Your task to perform on an android device: What is the news today? Image 0: 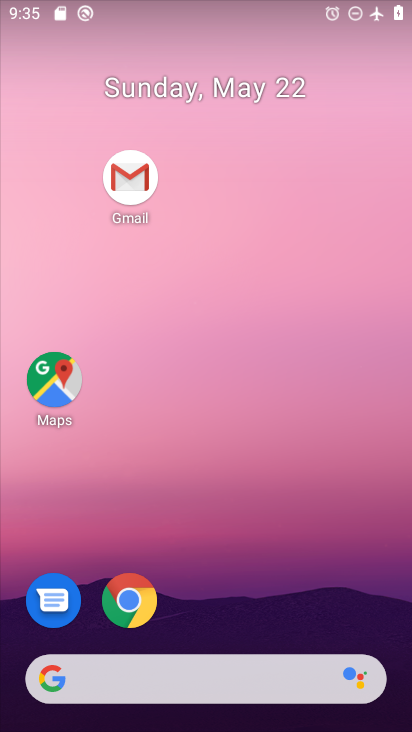
Step 0: drag from (269, 678) to (309, 141)
Your task to perform on an android device: What is the news today? Image 1: 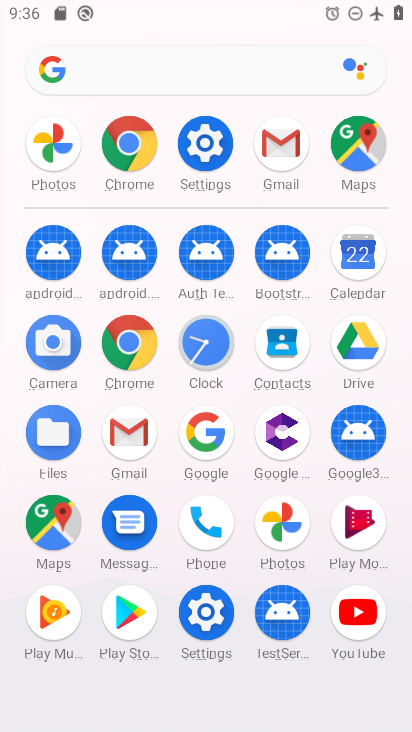
Step 1: click (201, 433)
Your task to perform on an android device: What is the news today? Image 2: 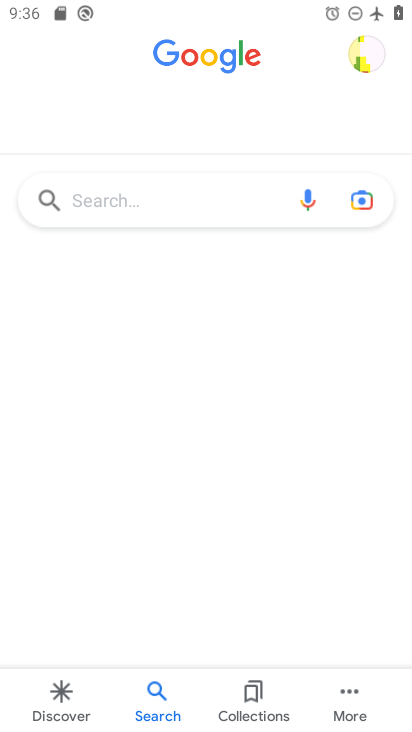
Step 2: click (193, 195)
Your task to perform on an android device: What is the news today? Image 3: 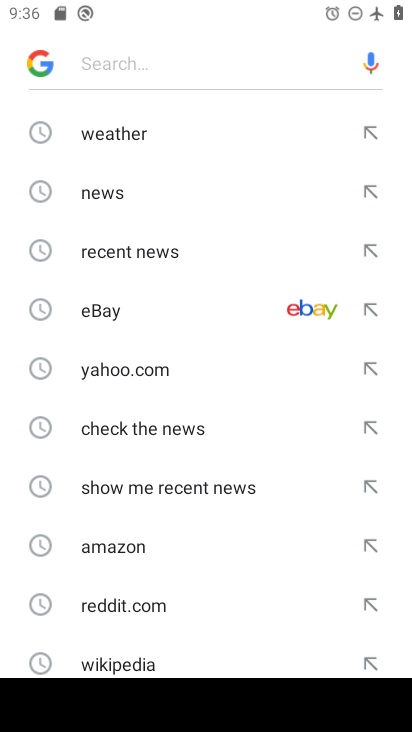
Step 3: click (187, 203)
Your task to perform on an android device: What is the news today? Image 4: 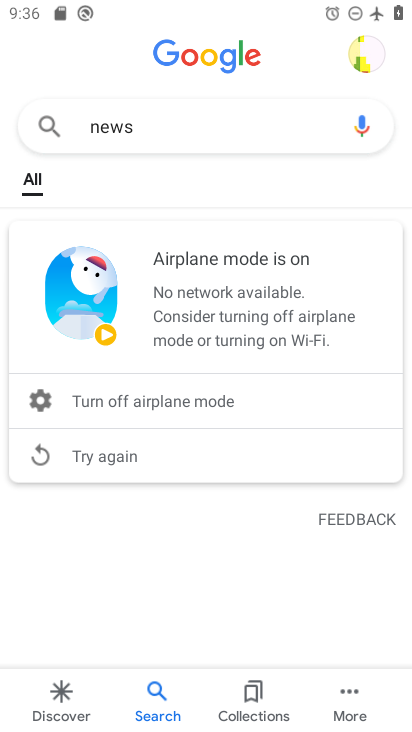
Step 4: task complete